Your task to perform on an android device: open app "Adobe Acrobat Reader" Image 0: 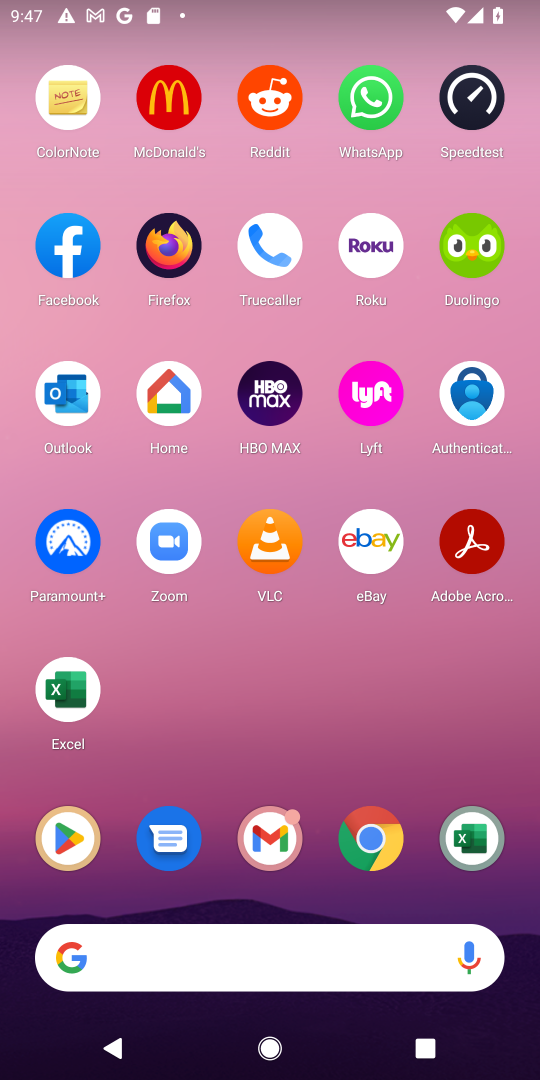
Step 0: press home button
Your task to perform on an android device: open app "Adobe Acrobat Reader" Image 1: 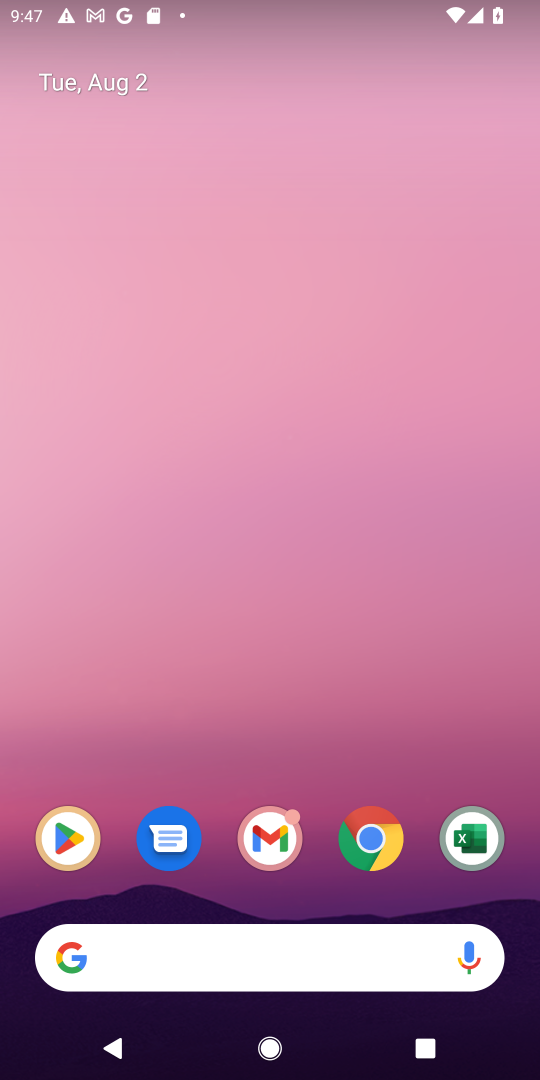
Step 1: drag from (300, 662) to (300, 60)
Your task to perform on an android device: open app "Adobe Acrobat Reader" Image 2: 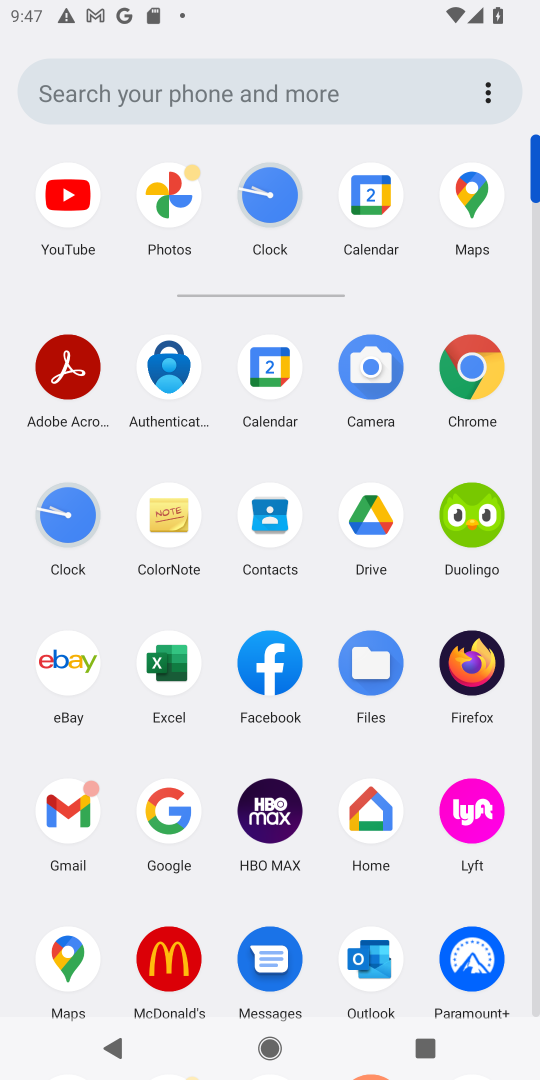
Step 2: drag from (413, 877) to (412, 469)
Your task to perform on an android device: open app "Adobe Acrobat Reader" Image 3: 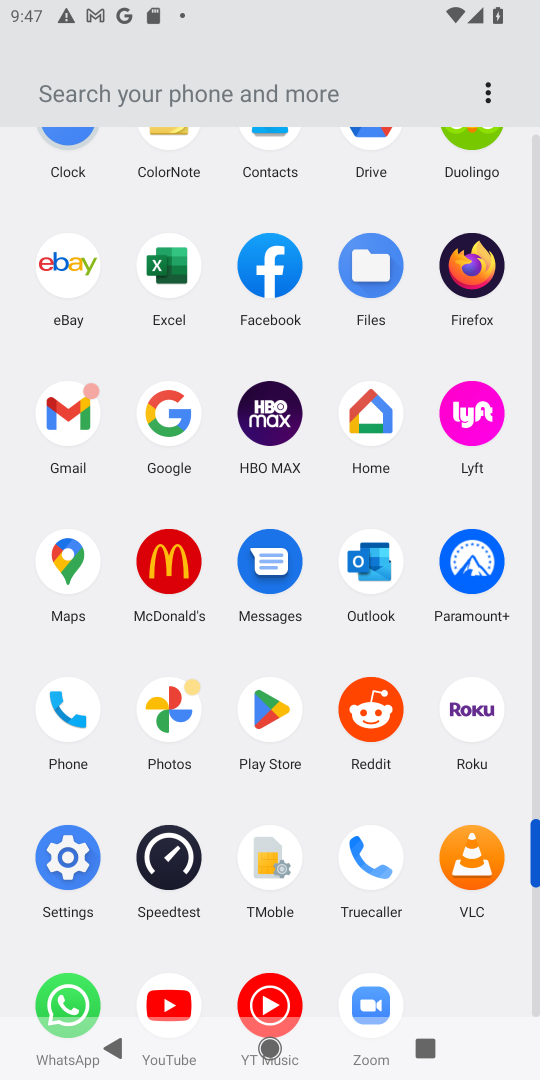
Step 3: click (267, 717)
Your task to perform on an android device: open app "Adobe Acrobat Reader" Image 4: 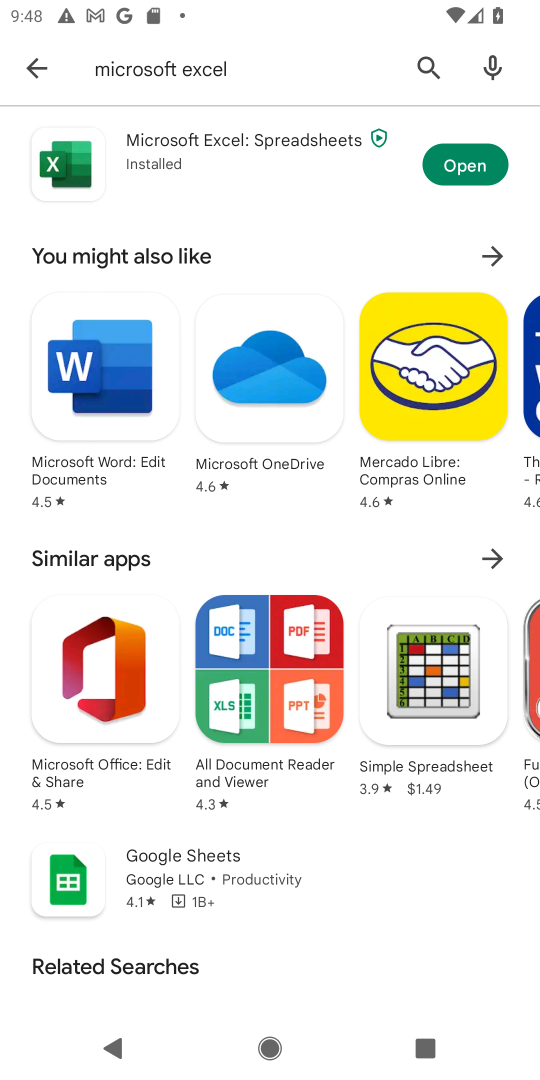
Step 4: click (425, 67)
Your task to perform on an android device: open app "Adobe Acrobat Reader" Image 5: 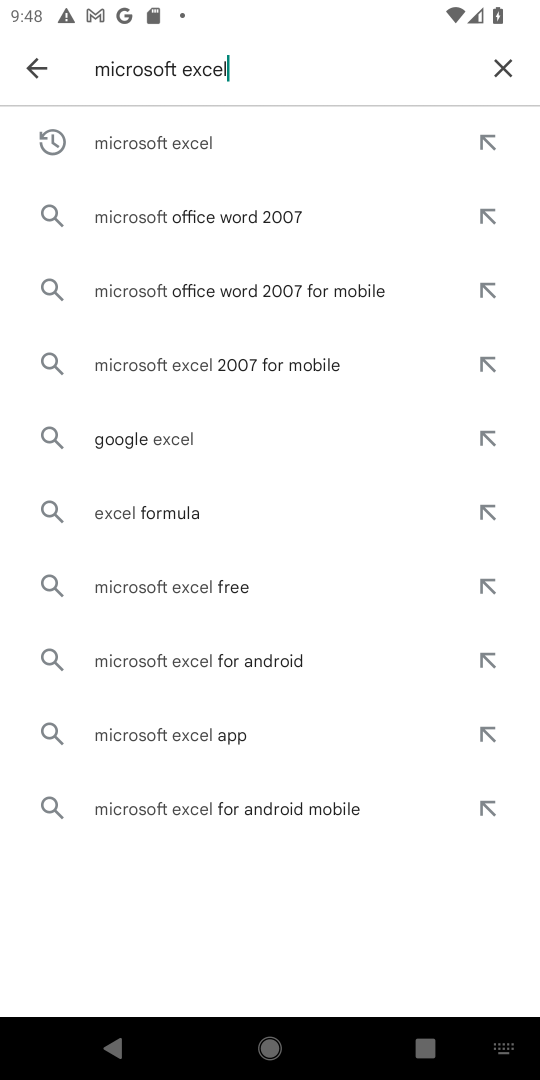
Step 5: click (501, 66)
Your task to perform on an android device: open app "Adobe Acrobat Reader" Image 6: 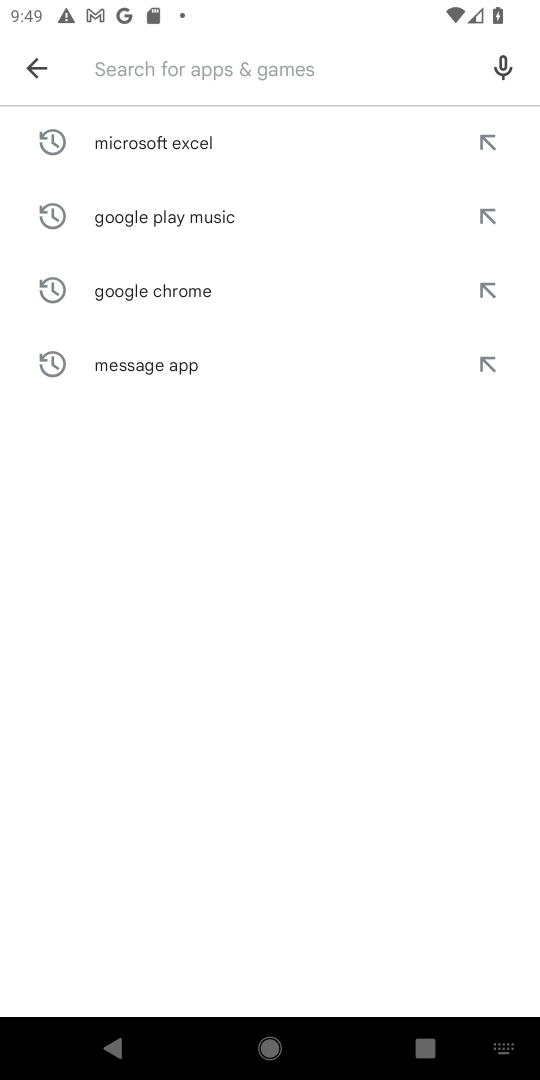
Step 6: click (248, 79)
Your task to perform on an android device: open app "Adobe Acrobat Reader" Image 7: 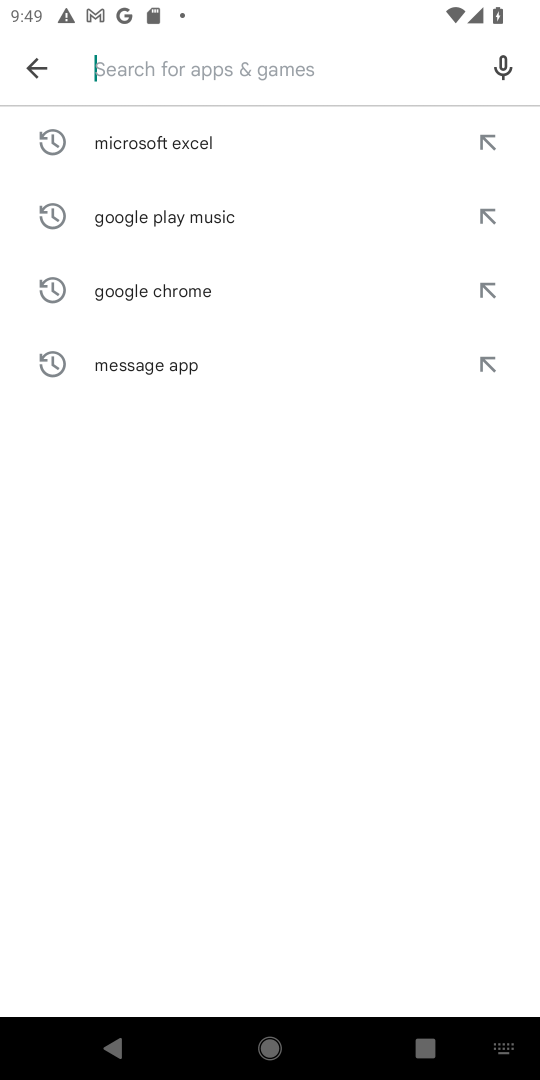
Step 7: click (329, 77)
Your task to perform on an android device: open app "Adobe Acrobat Reader" Image 8: 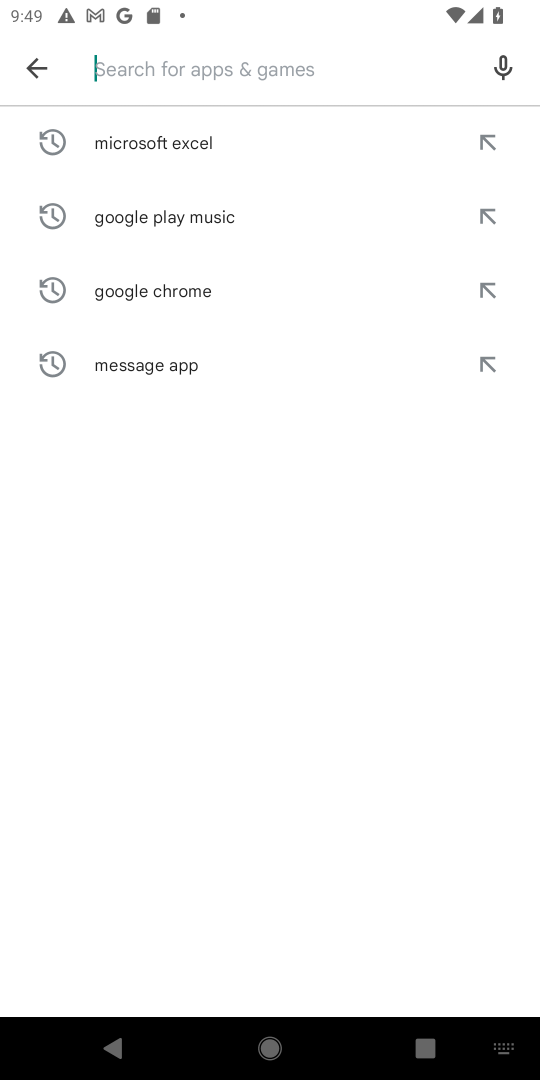
Step 8: click (307, 72)
Your task to perform on an android device: open app "Adobe Acrobat Reader" Image 9: 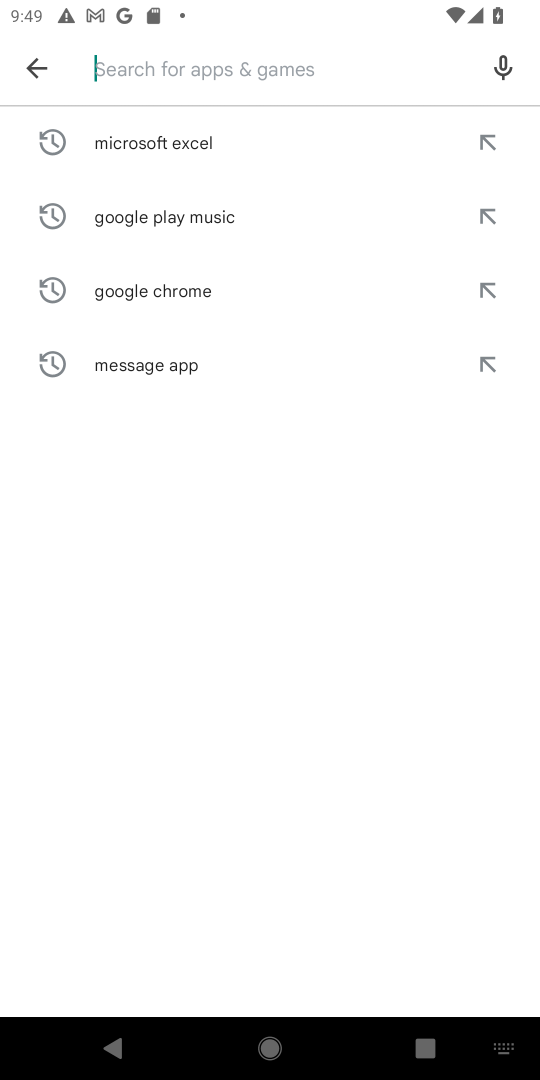
Step 9: type "Adobe Acrobat Reader"
Your task to perform on an android device: open app "Adobe Acrobat Reader" Image 10: 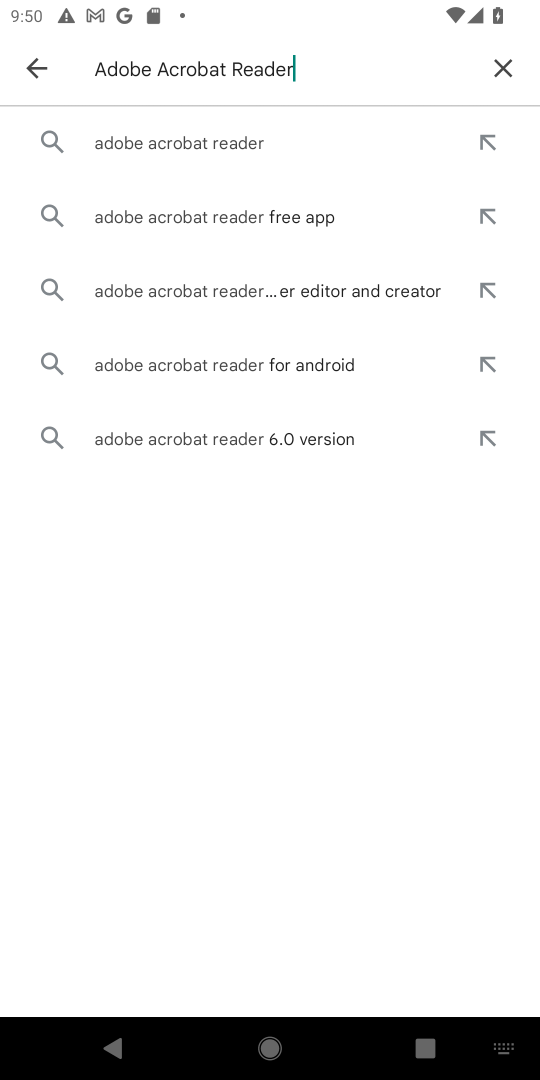
Step 10: click (239, 145)
Your task to perform on an android device: open app "Adobe Acrobat Reader" Image 11: 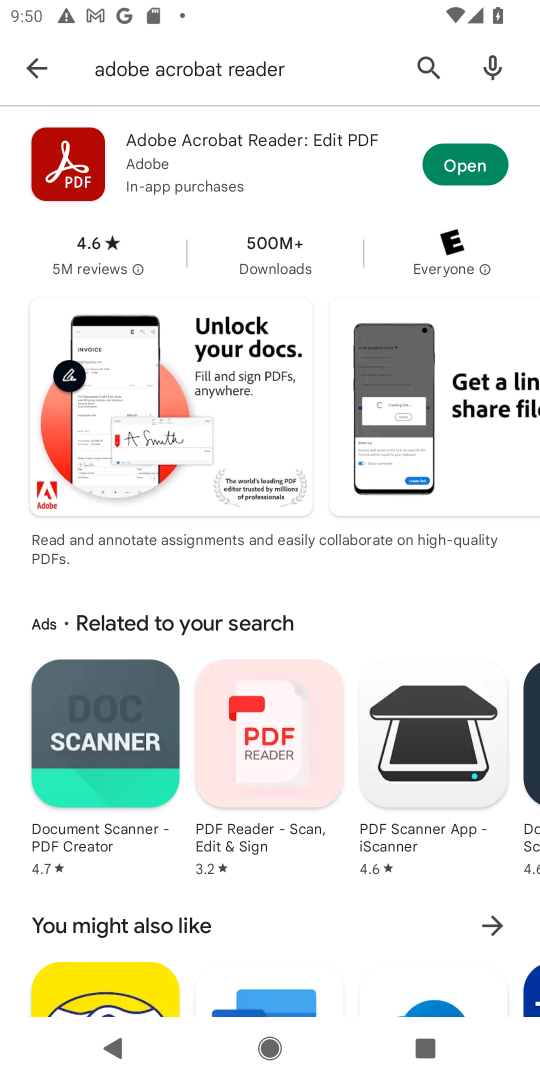
Step 11: click (474, 170)
Your task to perform on an android device: open app "Adobe Acrobat Reader" Image 12: 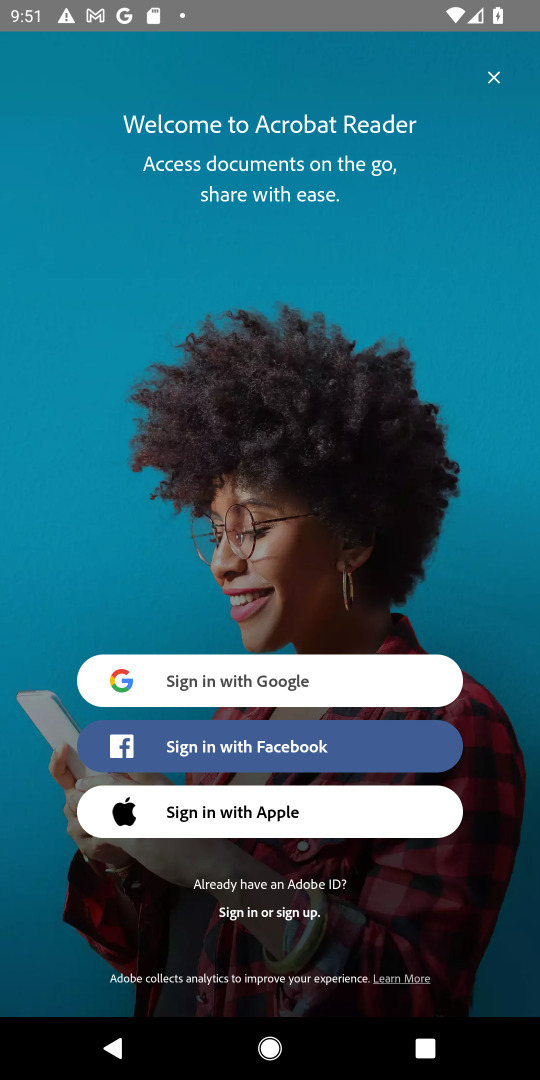
Step 12: task complete